Your task to perform on an android device: Clear the shopping cart on ebay.com. Add asus zenbook to the cart on ebay.com Image 0: 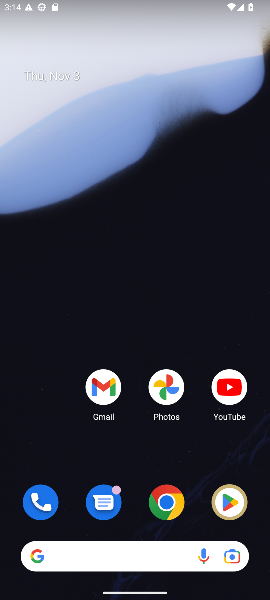
Step 0: drag from (145, 544) to (219, 127)
Your task to perform on an android device: Clear the shopping cart on ebay.com. Add asus zenbook to the cart on ebay.com Image 1: 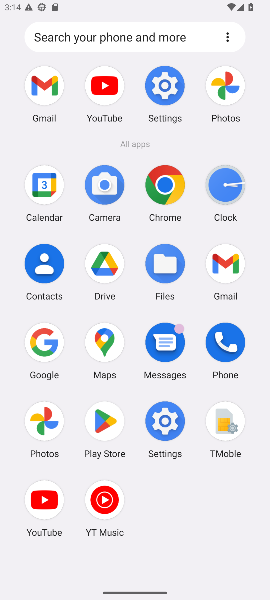
Step 1: click (54, 344)
Your task to perform on an android device: Clear the shopping cart on ebay.com. Add asus zenbook to the cart on ebay.com Image 2: 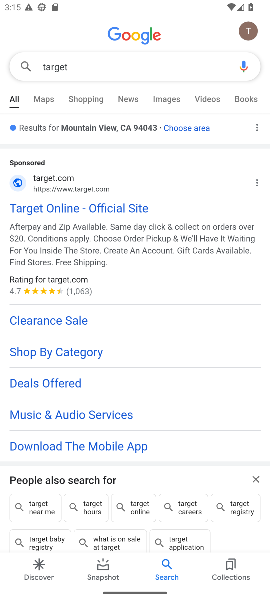
Step 2: click (165, 61)
Your task to perform on an android device: Clear the shopping cart on ebay.com. Add asus zenbook to the cart on ebay.com Image 3: 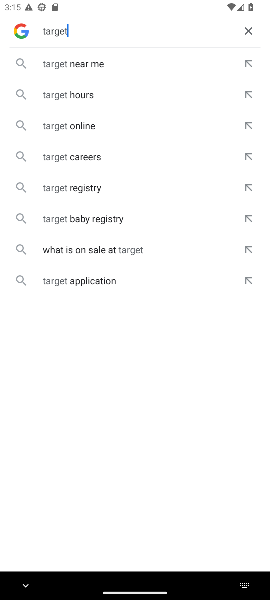
Step 3: click (252, 34)
Your task to perform on an android device: Clear the shopping cart on ebay.com. Add asus zenbook to the cart on ebay.com Image 4: 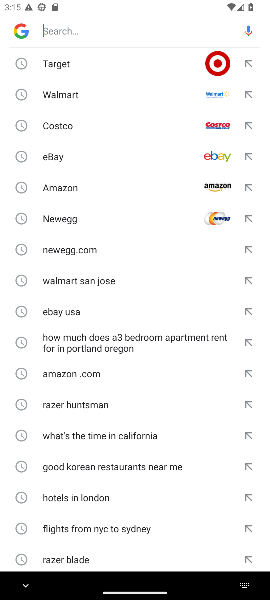
Step 4: type "ebay.com"
Your task to perform on an android device: Clear the shopping cart on ebay.com. Add asus zenbook to the cart on ebay.com Image 5: 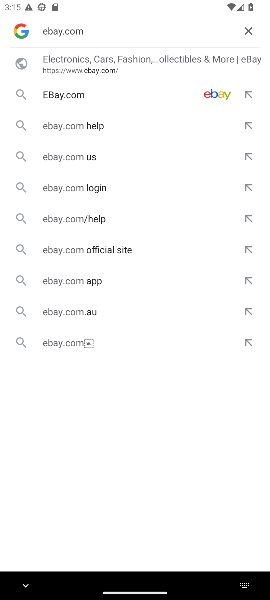
Step 5: click (74, 78)
Your task to perform on an android device: Clear the shopping cart on ebay.com. Add asus zenbook to the cart on ebay.com Image 6: 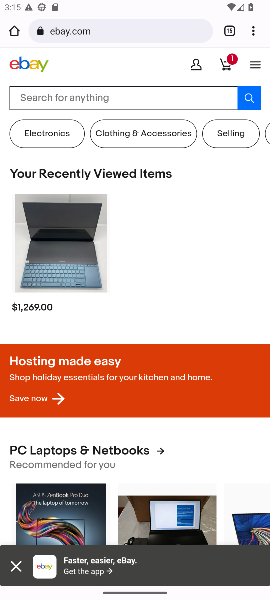
Step 6: click (60, 103)
Your task to perform on an android device: Clear the shopping cart on ebay.com. Add asus zenbook to the cart on ebay.com Image 7: 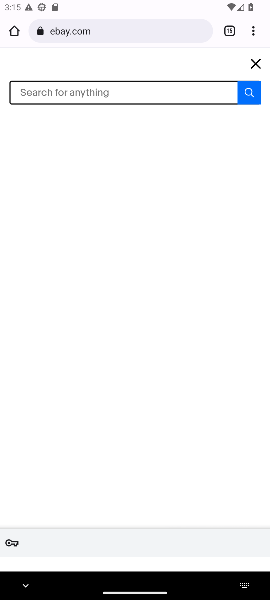
Step 7: type "asus zenbook"
Your task to perform on an android device: Clear the shopping cart on ebay.com. Add asus zenbook to the cart on ebay.com Image 8: 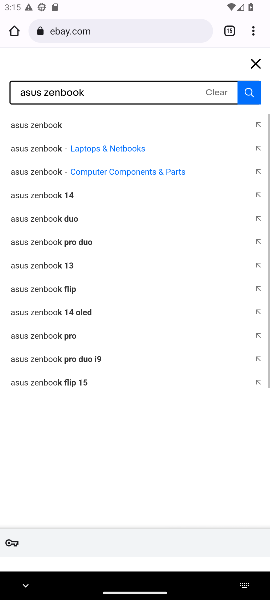
Step 8: click (85, 128)
Your task to perform on an android device: Clear the shopping cart on ebay.com. Add asus zenbook to the cart on ebay.com Image 9: 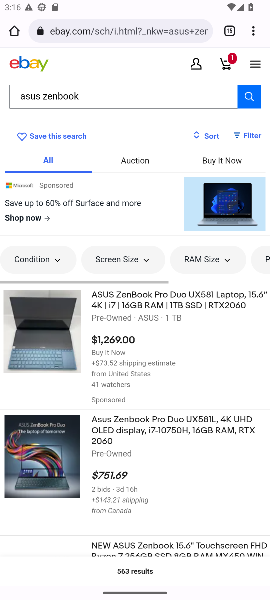
Step 9: click (67, 342)
Your task to perform on an android device: Clear the shopping cart on ebay.com. Add asus zenbook to the cart on ebay.com Image 10: 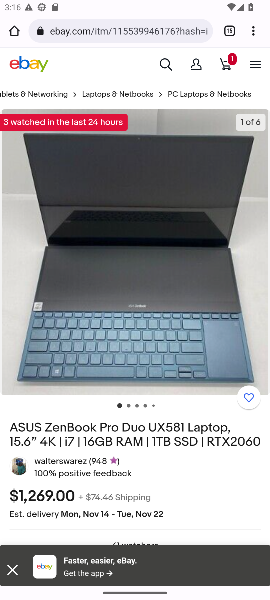
Step 10: task complete